Your task to perform on an android device: Do I have any events tomorrow? Image 0: 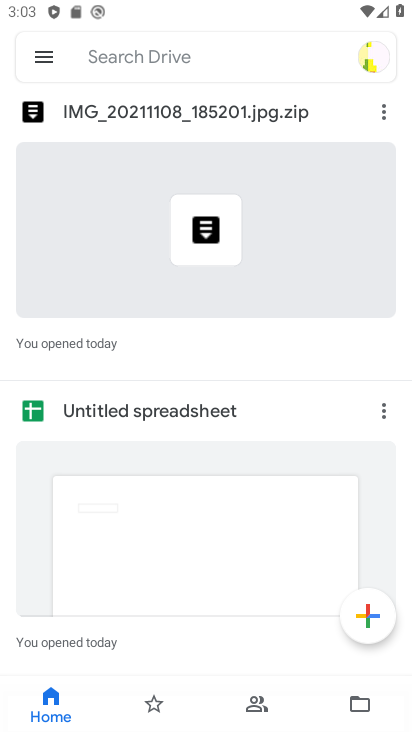
Step 0: press home button
Your task to perform on an android device: Do I have any events tomorrow? Image 1: 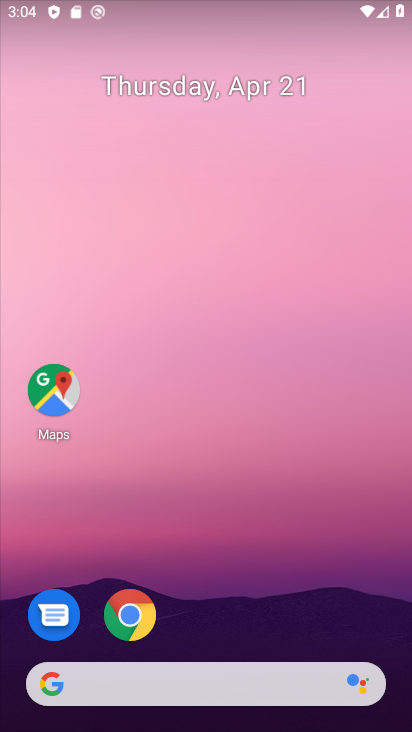
Step 1: drag from (216, 641) to (165, 84)
Your task to perform on an android device: Do I have any events tomorrow? Image 2: 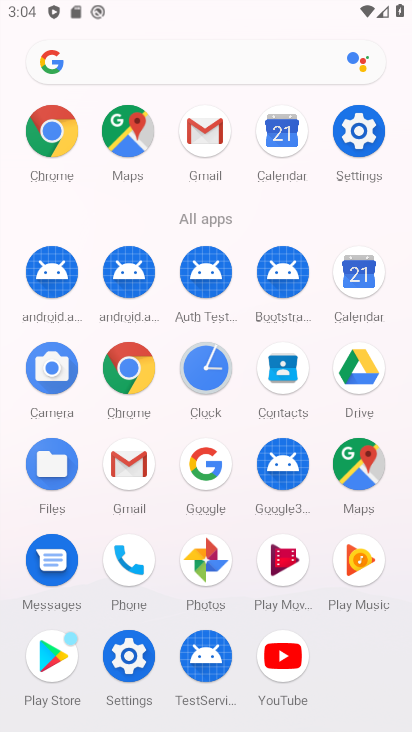
Step 2: click (360, 270)
Your task to perform on an android device: Do I have any events tomorrow? Image 3: 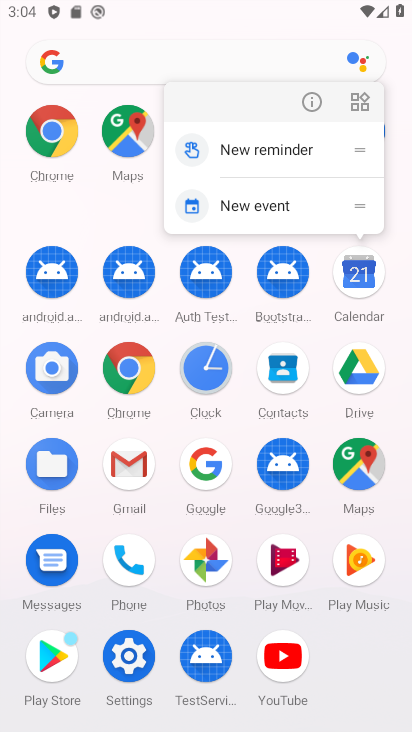
Step 3: click (361, 276)
Your task to perform on an android device: Do I have any events tomorrow? Image 4: 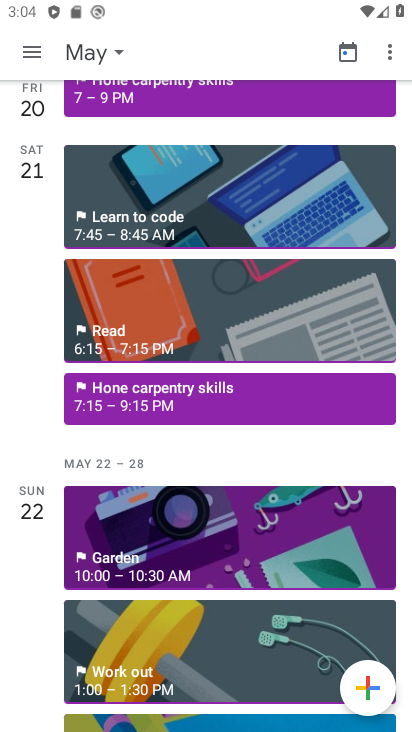
Step 4: click (34, 43)
Your task to perform on an android device: Do I have any events tomorrow? Image 5: 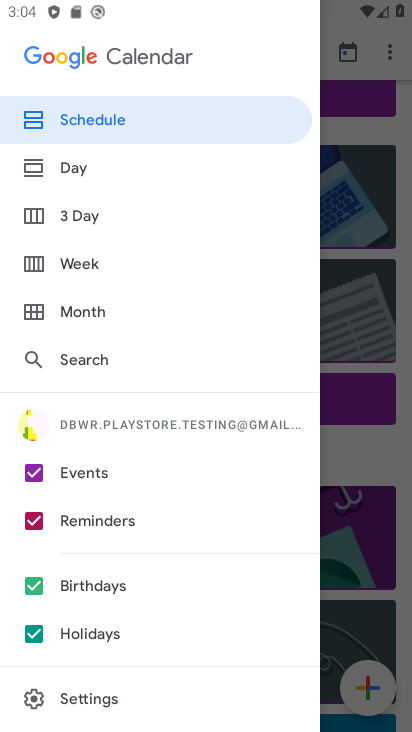
Step 5: click (61, 169)
Your task to perform on an android device: Do I have any events tomorrow? Image 6: 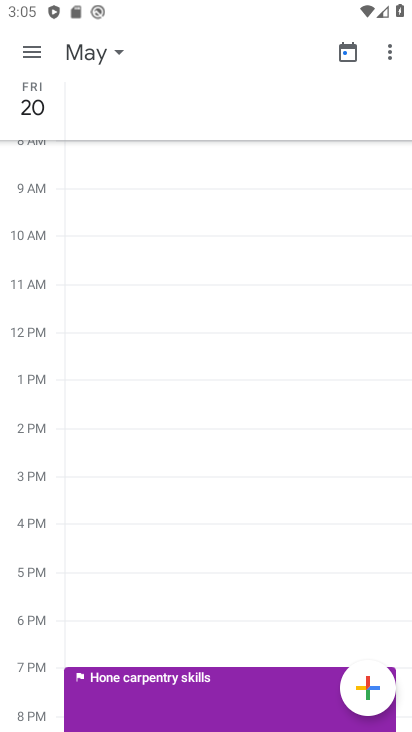
Step 6: click (110, 55)
Your task to perform on an android device: Do I have any events tomorrow? Image 7: 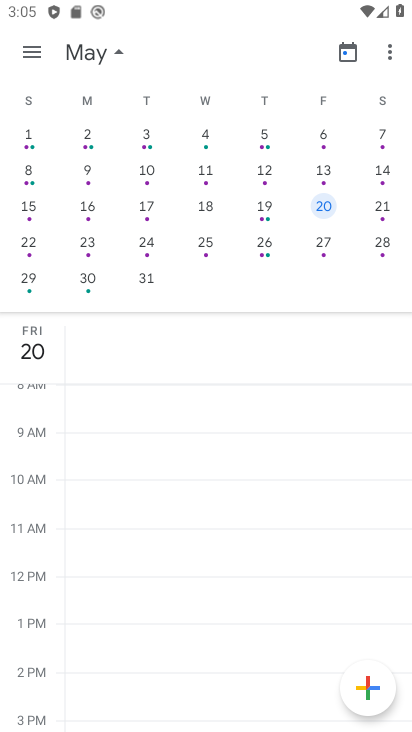
Step 7: drag from (71, 212) to (411, 240)
Your task to perform on an android device: Do I have any events tomorrow? Image 8: 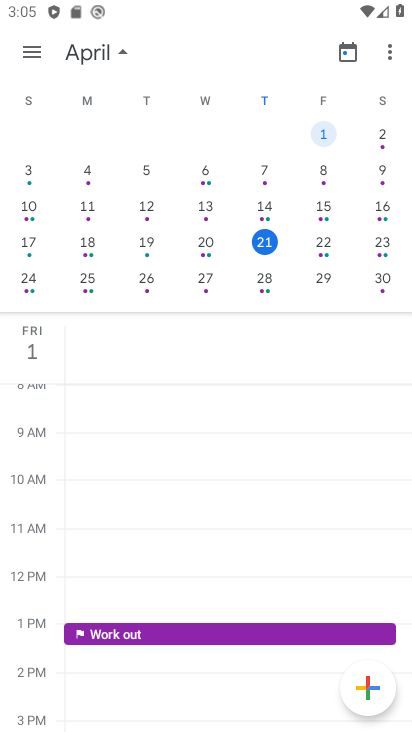
Step 8: click (322, 241)
Your task to perform on an android device: Do I have any events tomorrow? Image 9: 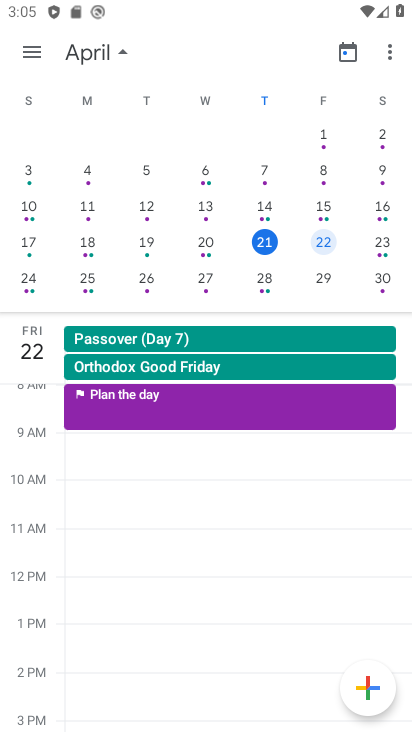
Step 9: task complete